Your task to perform on an android device: Add "dell xps" to the cart on target Image 0: 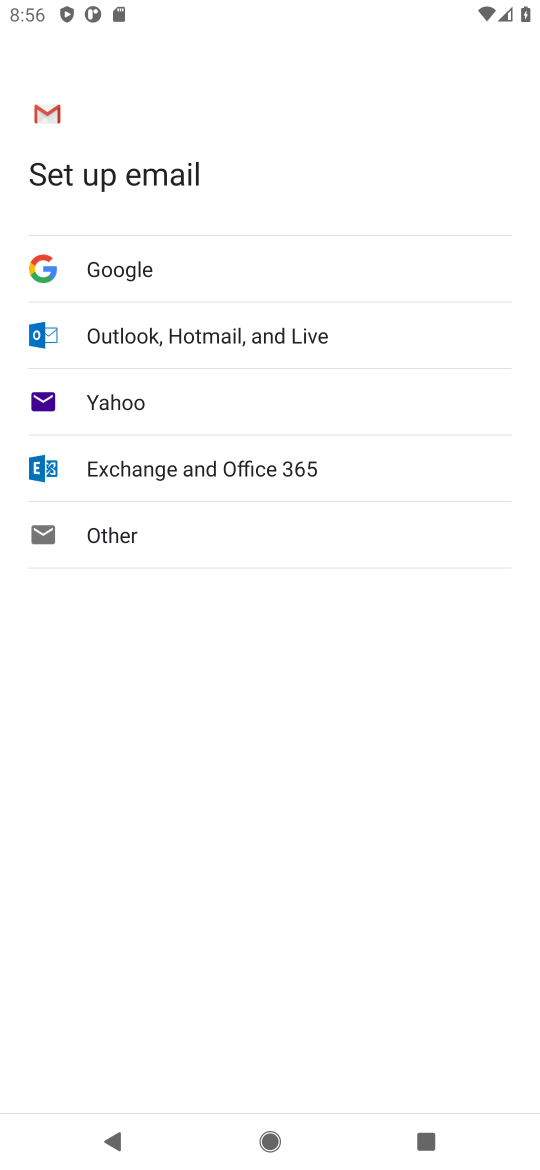
Step 0: press home button
Your task to perform on an android device: Add "dell xps" to the cart on target Image 1: 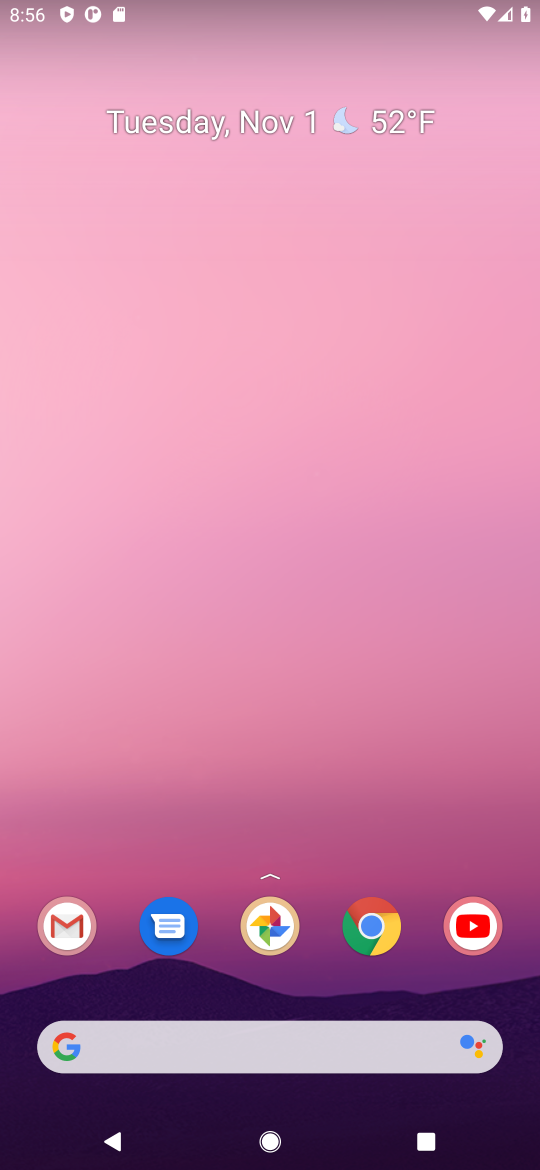
Step 1: click (377, 936)
Your task to perform on an android device: Add "dell xps" to the cart on target Image 2: 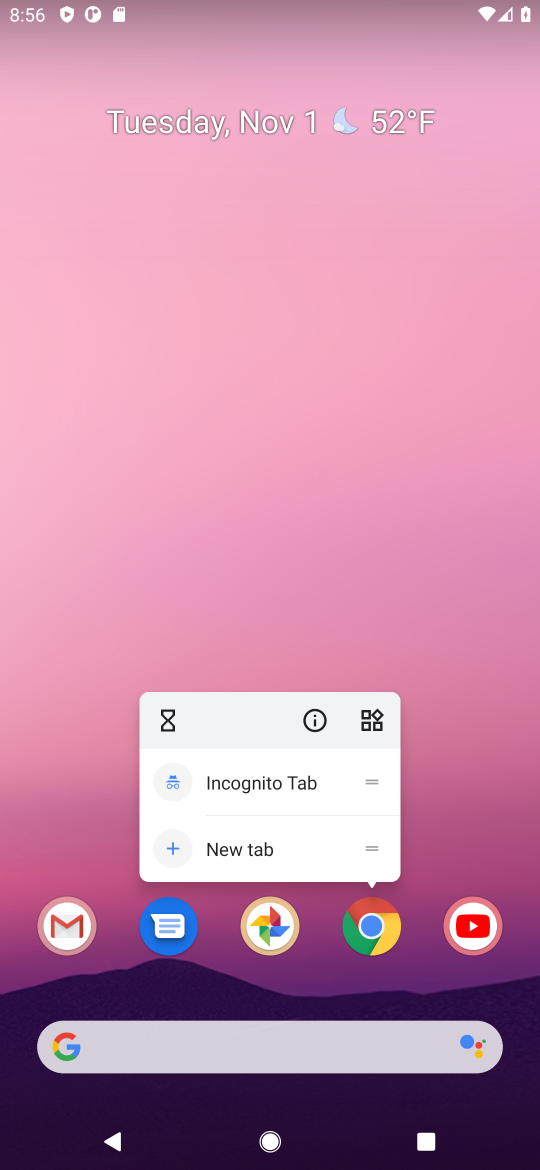
Step 2: click (392, 938)
Your task to perform on an android device: Add "dell xps" to the cart on target Image 3: 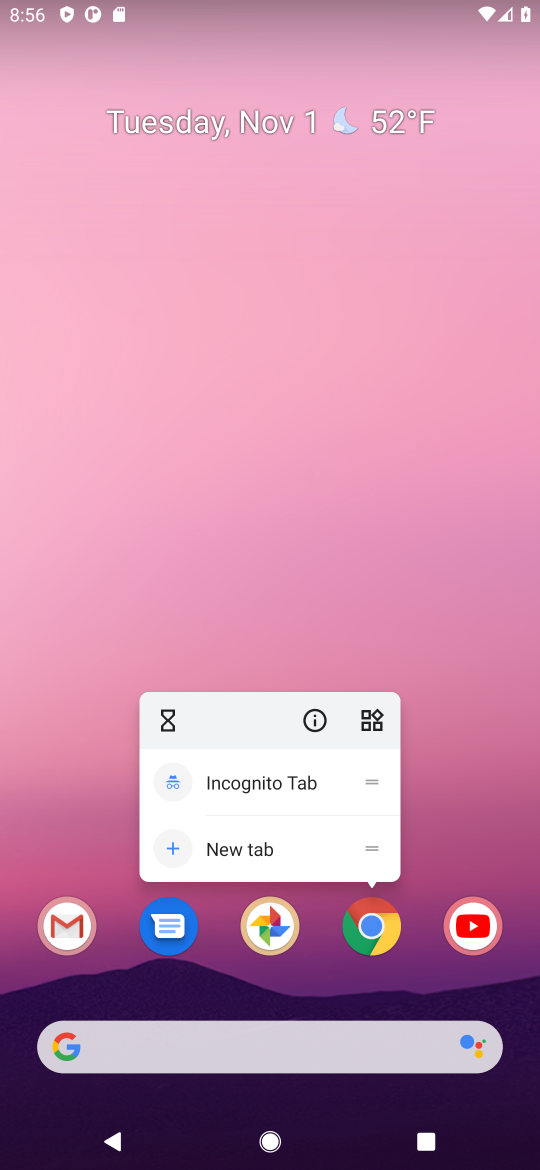
Step 3: click (393, 914)
Your task to perform on an android device: Add "dell xps" to the cart on target Image 4: 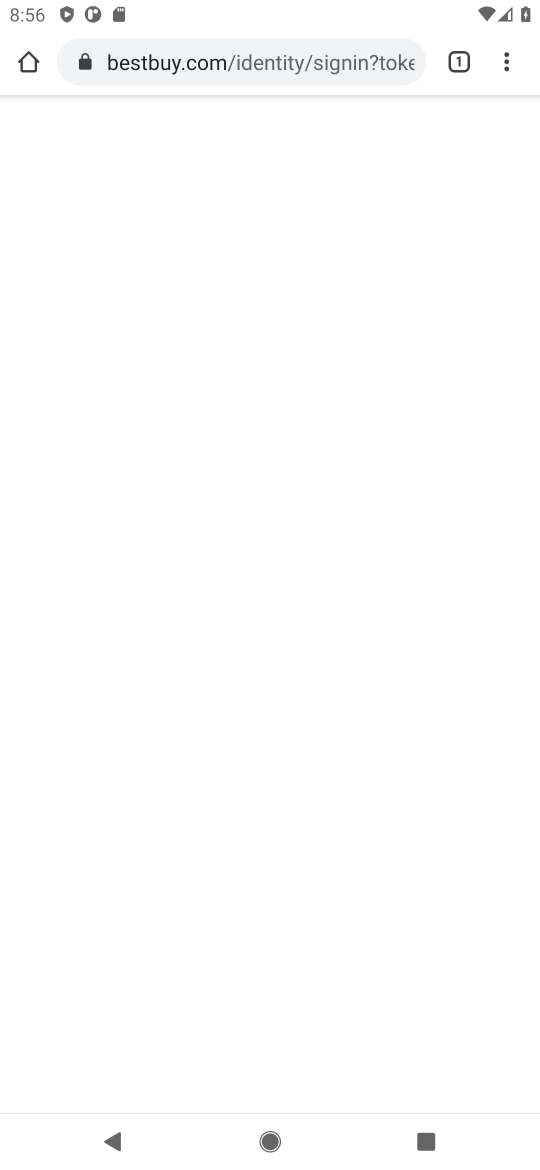
Step 4: click (392, 916)
Your task to perform on an android device: Add "dell xps" to the cart on target Image 5: 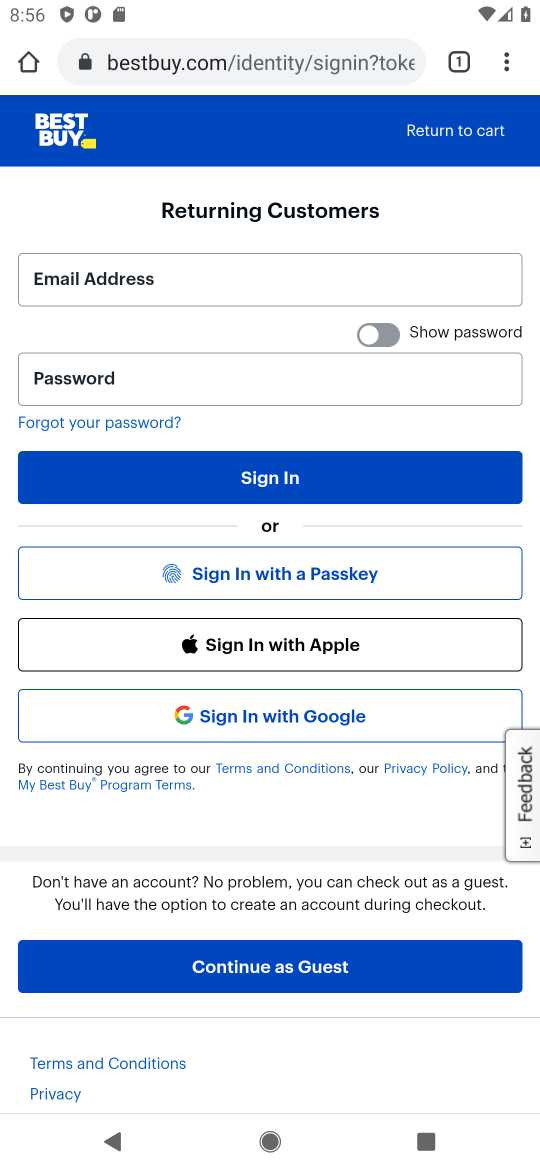
Step 5: click (160, 69)
Your task to perform on an android device: Add "dell xps" to the cart on target Image 6: 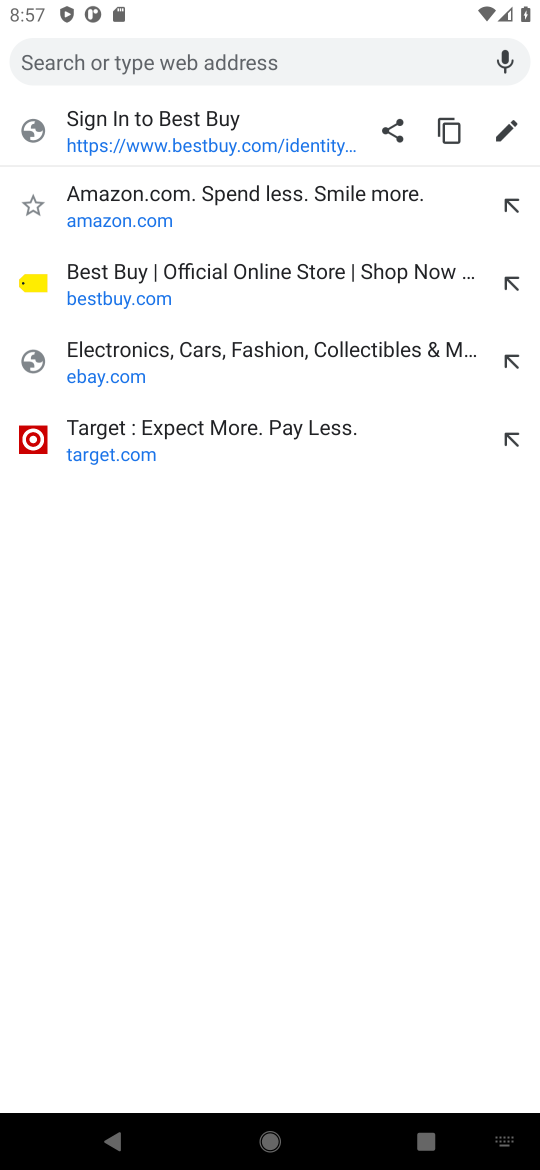
Step 6: type "target"
Your task to perform on an android device: Add "dell xps" to the cart on target Image 7: 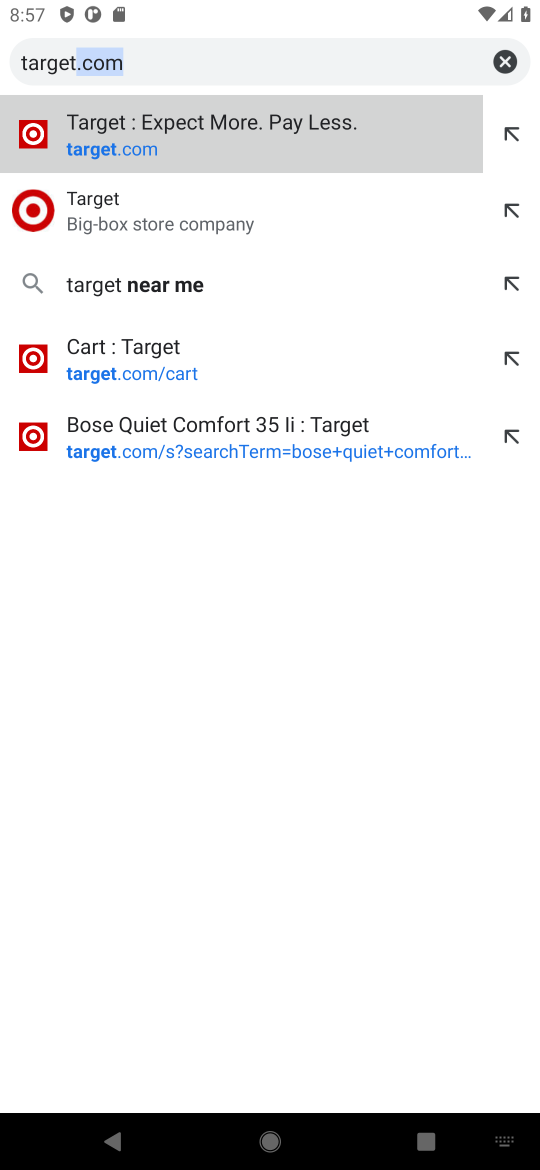
Step 7: type ""
Your task to perform on an android device: Add "dell xps" to the cart on target Image 8: 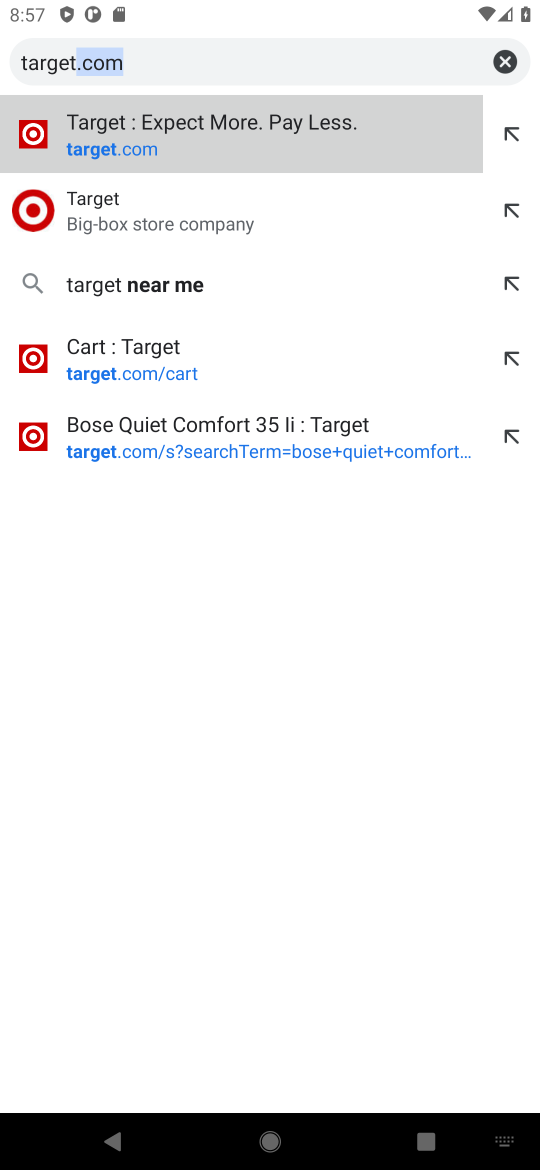
Step 8: click (161, 160)
Your task to perform on an android device: Add "dell xps" to the cart on target Image 9: 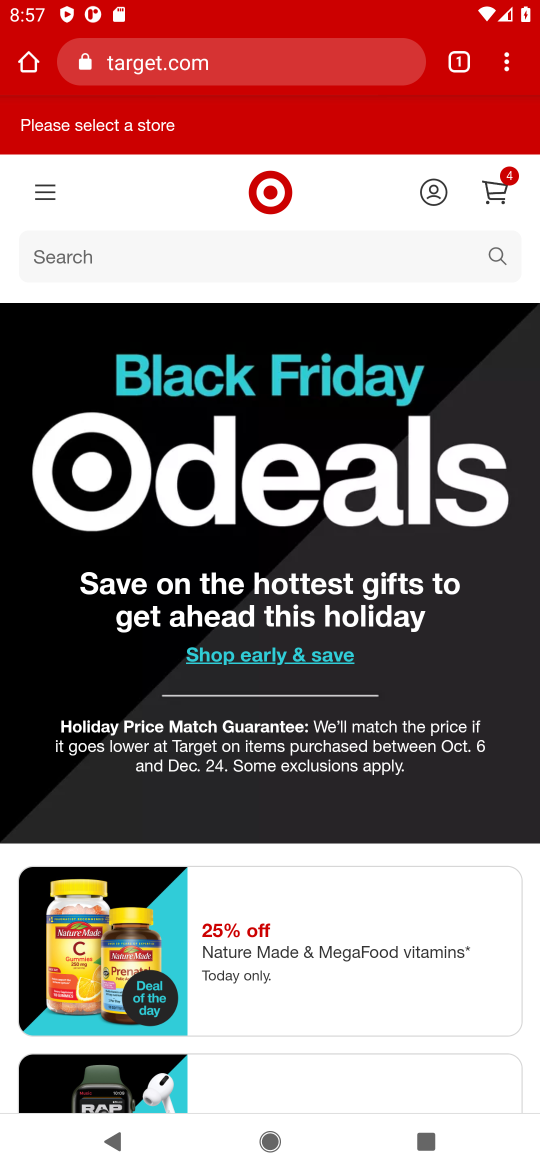
Step 9: click (495, 252)
Your task to perform on an android device: Add "dell xps" to the cart on target Image 10: 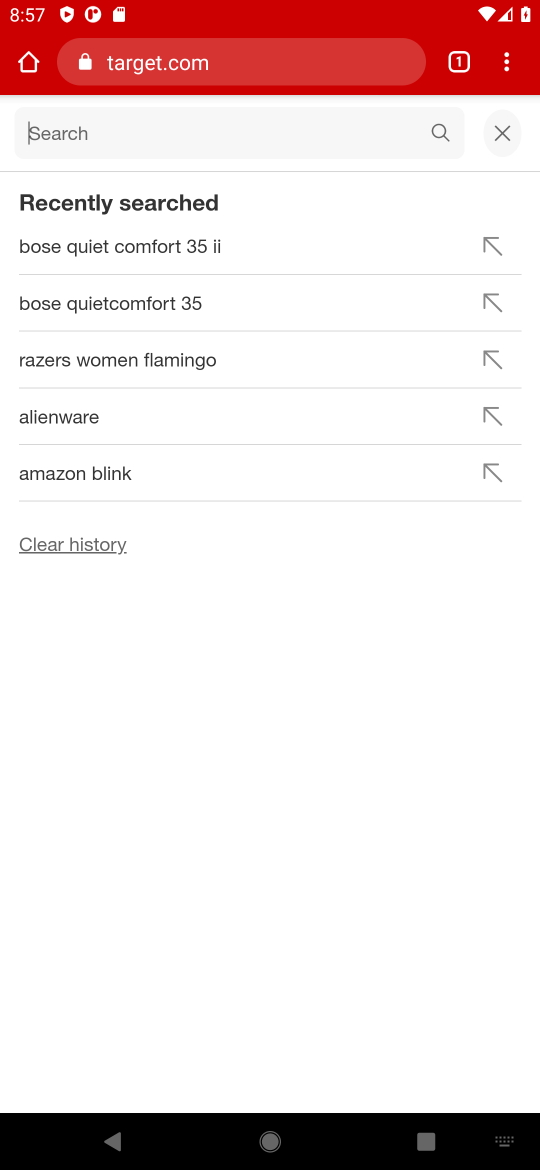
Step 10: type "dell xps"
Your task to perform on an android device: Add "dell xps" to the cart on target Image 11: 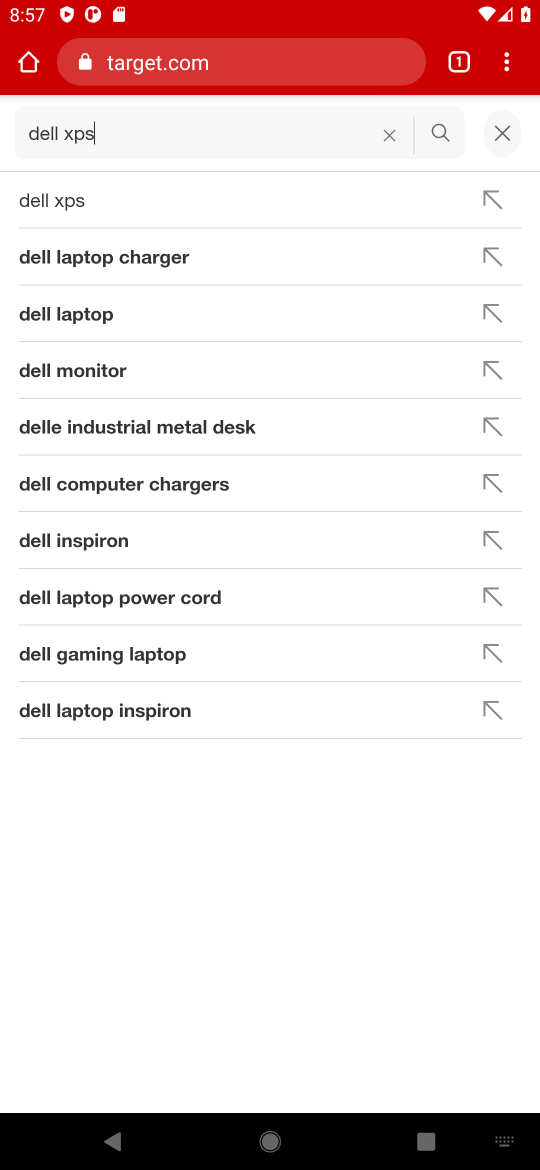
Step 11: type ""
Your task to perform on an android device: Add "dell xps" to the cart on target Image 12: 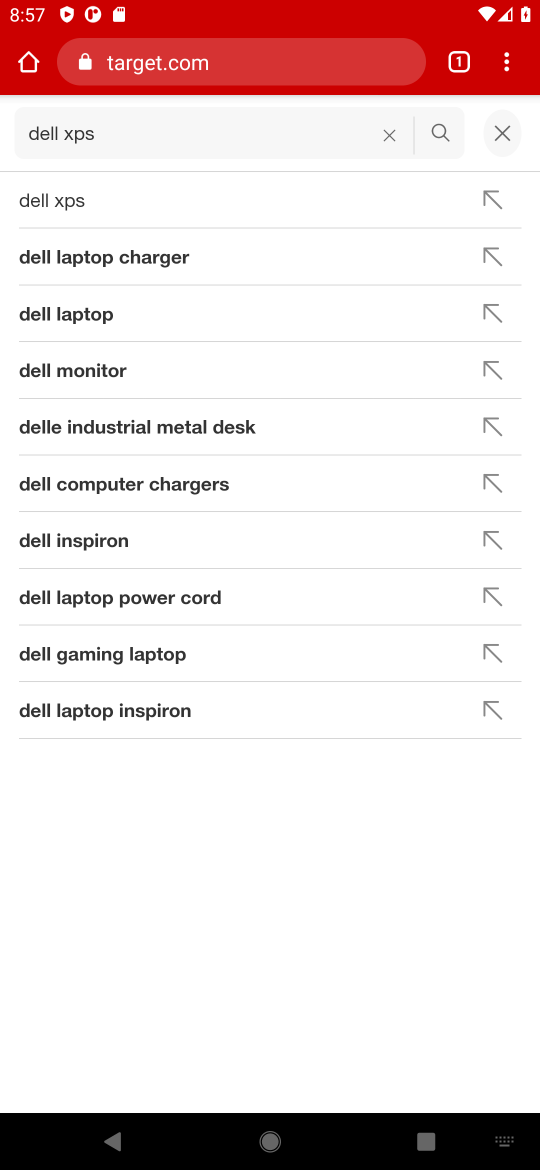
Step 12: click (67, 201)
Your task to perform on an android device: Add "dell xps" to the cart on target Image 13: 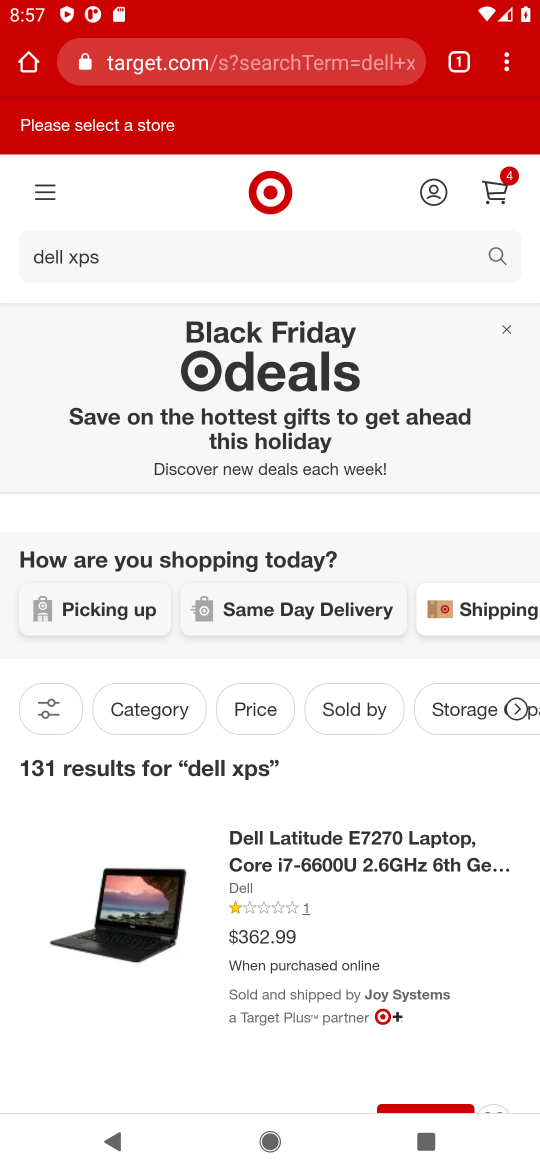
Step 13: drag from (234, 871) to (234, 428)
Your task to perform on an android device: Add "dell xps" to the cart on target Image 14: 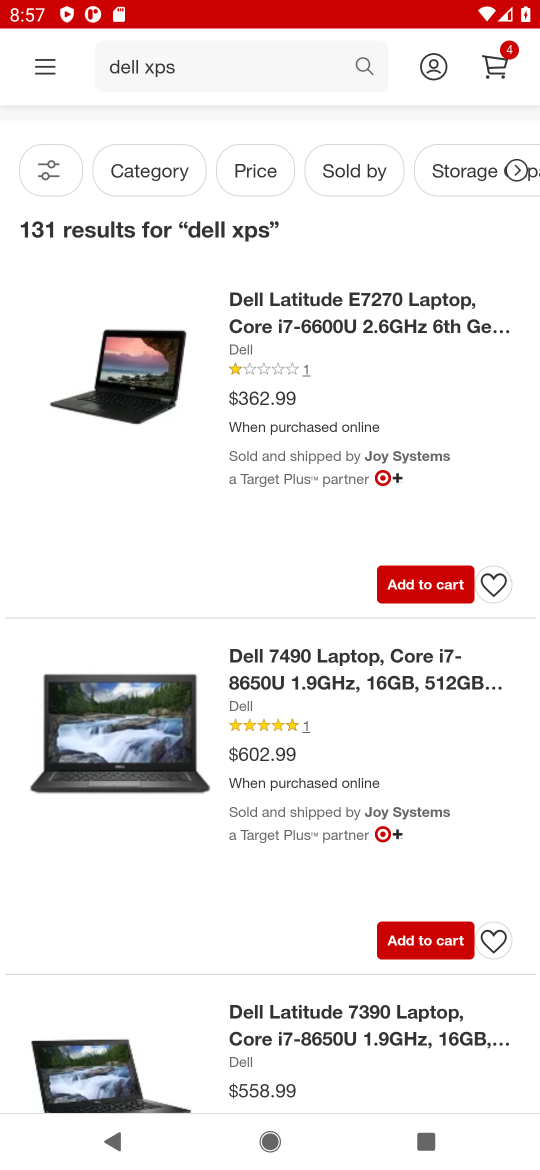
Step 14: drag from (293, 879) to (220, 48)
Your task to perform on an android device: Add "dell xps" to the cart on target Image 15: 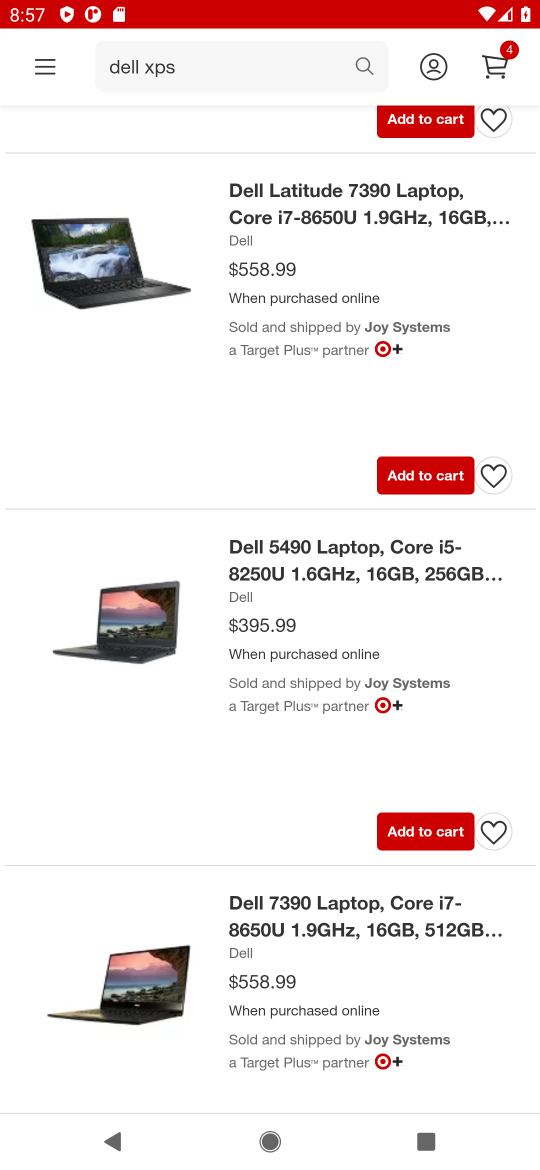
Step 15: click (254, 927)
Your task to perform on an android device: Add "dell xps" to the cart on target Image 16: 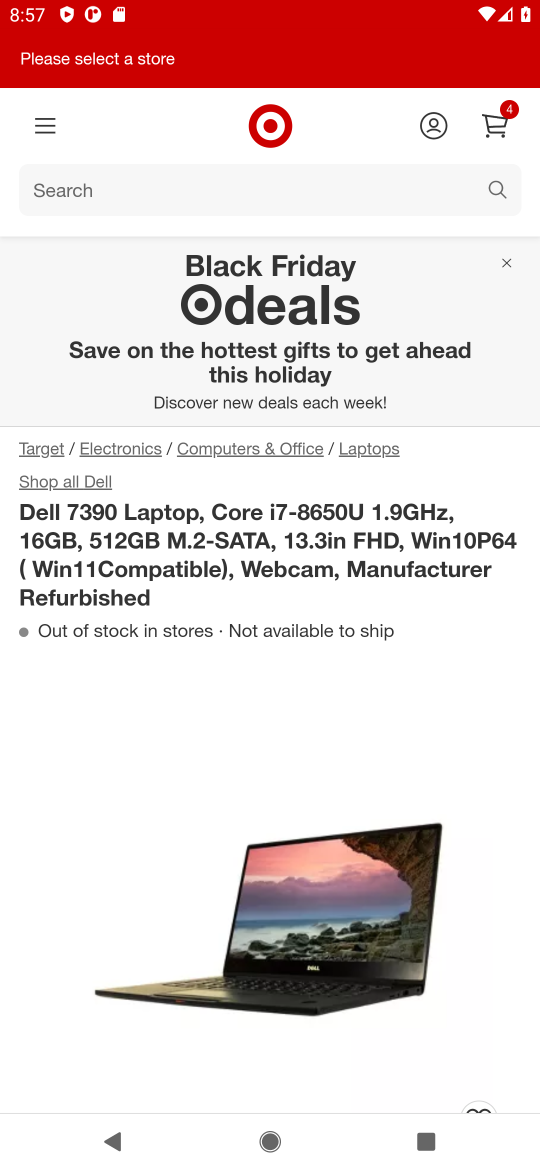
Step 16: drag from (141, 887) to (117, 435)
Your task to perform on an android device: Add "dell xps" to the cart on target Image 17: 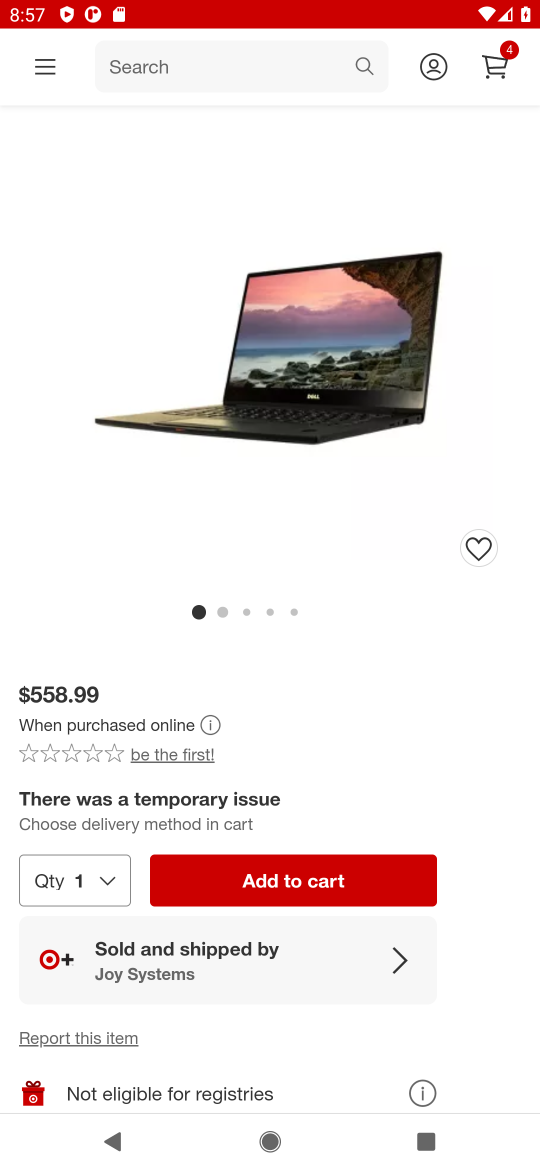
Step 17: click (293, 890)
Your task to perform on an android device: Add "dell xps" to the cart on target Image 18: 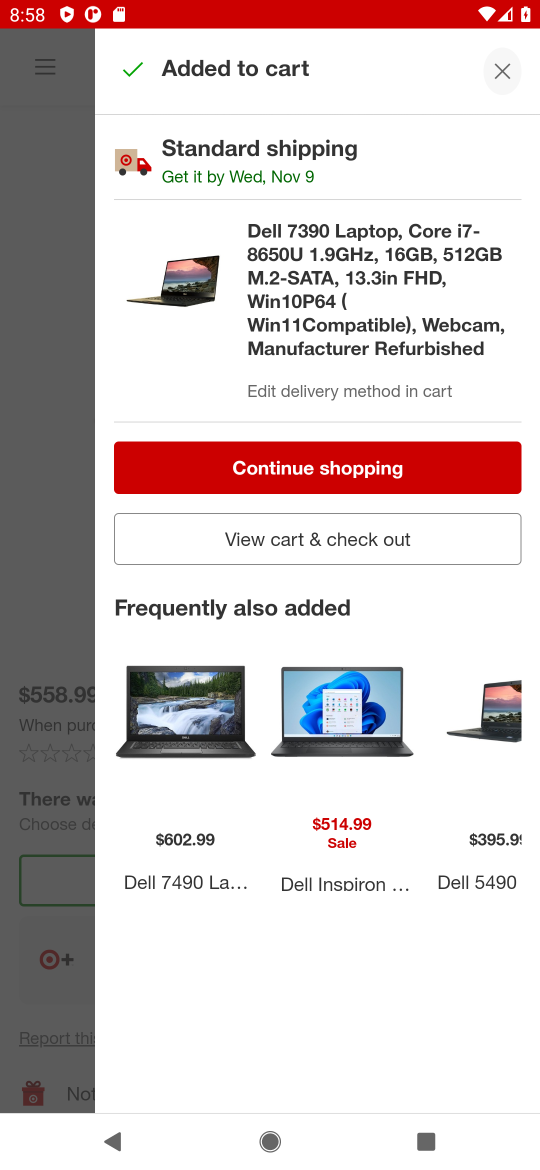
Step 18: click (242, 545)
Your task to perform on an android device: Add "dell xps" to the cart on target Image 19: 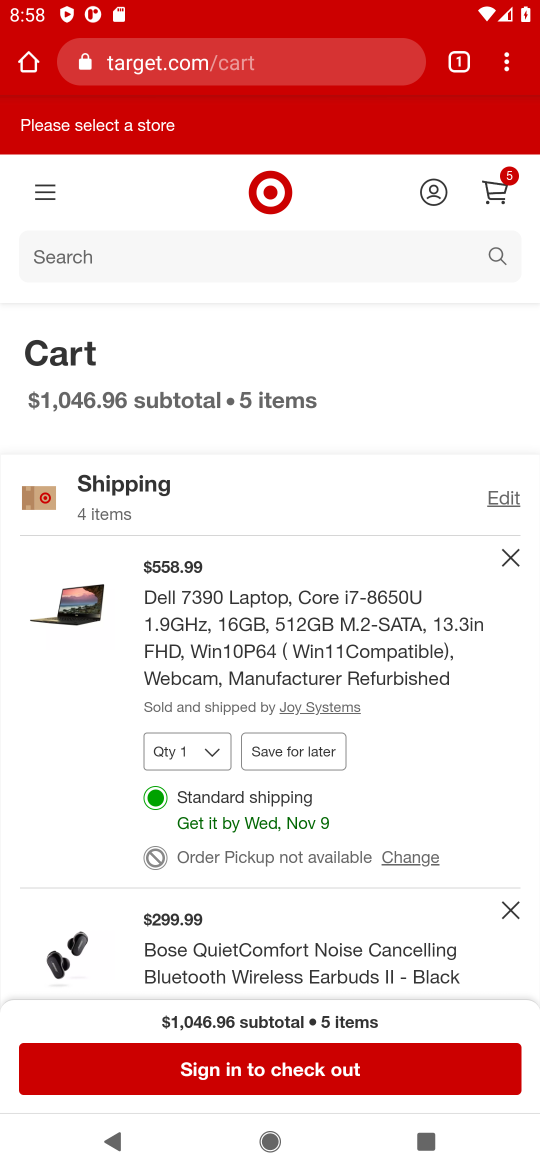
Step 19: click (321, 1066)
Your task to perform on an android device: Add "dell xps" to the cart on target Image 20: 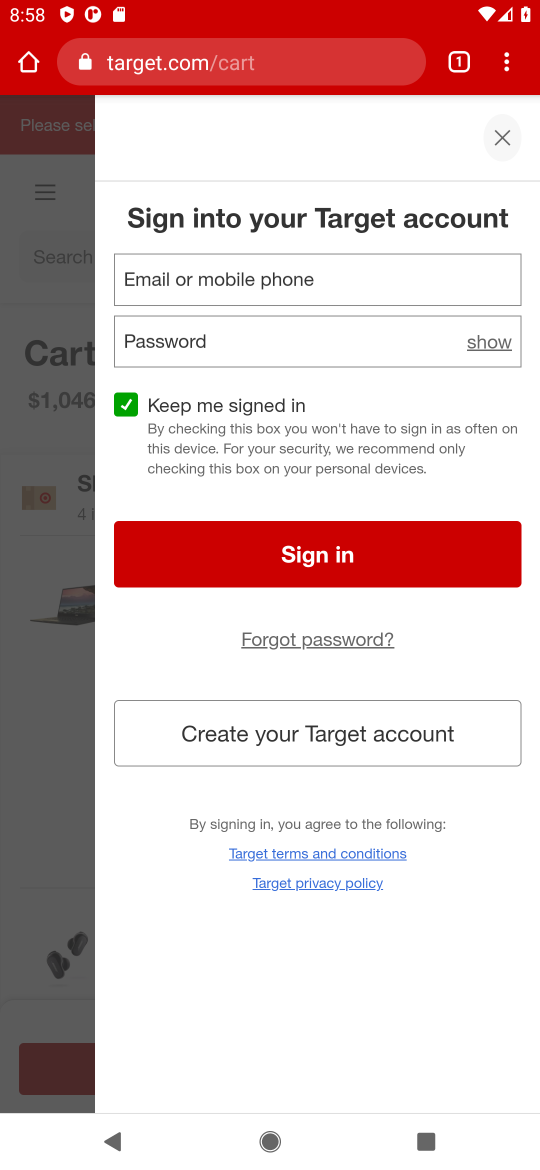
Step 20: task complete